Your task to perform on an android device: install app "Flipkart Online Shopping App" Image 0: 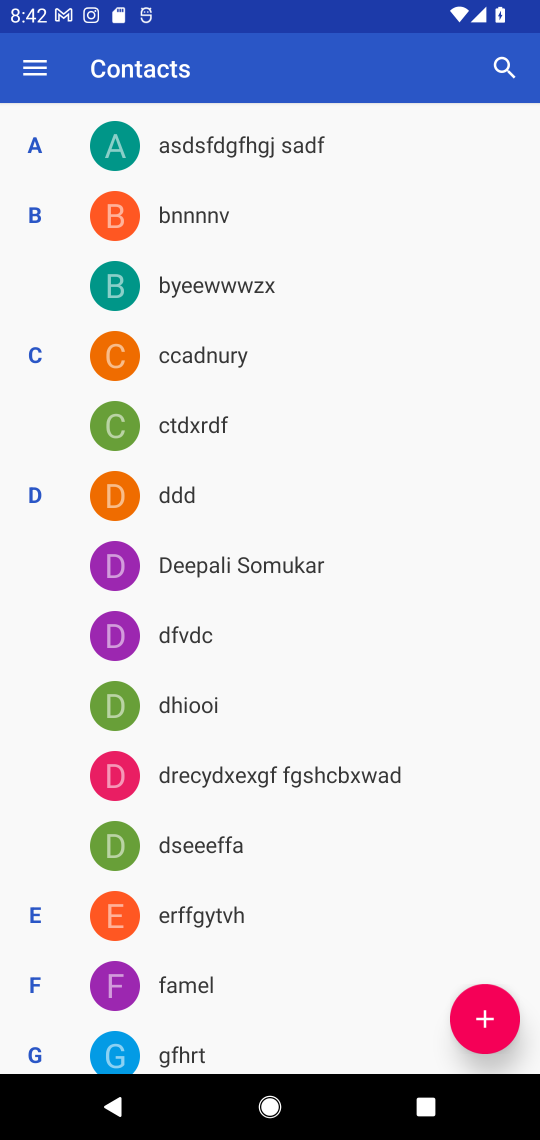
Step 0: press home button
Your task to perform on an android device: install app "Flipkart Online Shopping App" Image 1: 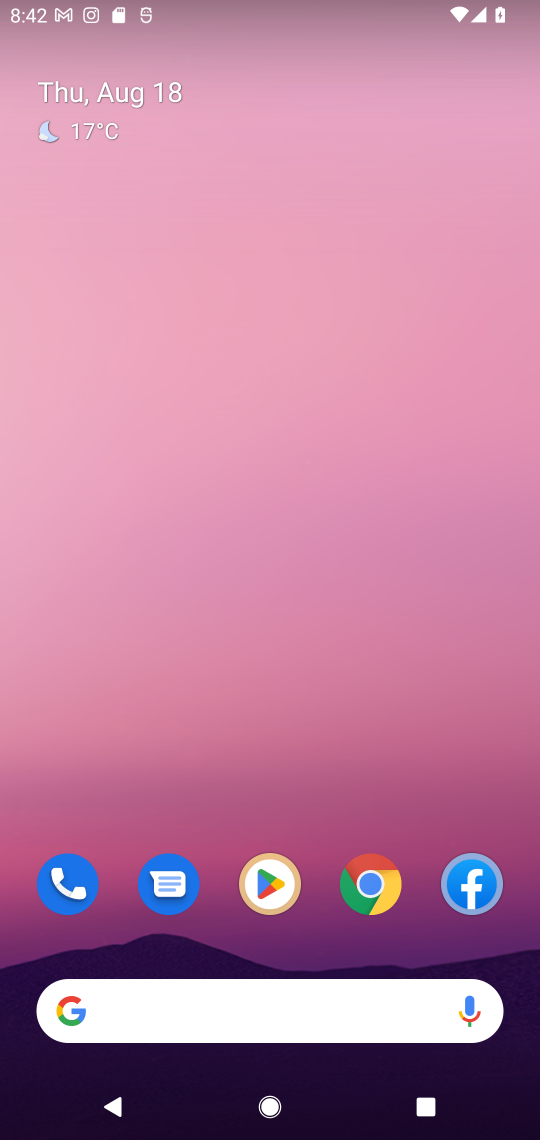
Step 1: drag from (232, 1026) to (423, 87)
Your task to perform on an android device: install app "Flipkart Online Shopping App" Image 2: 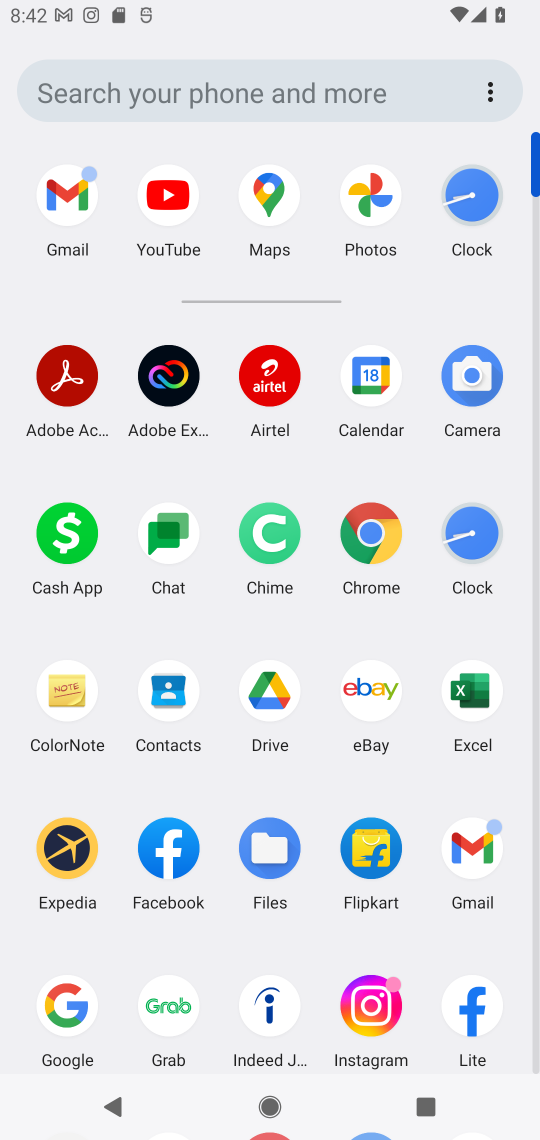
Step 2: drag from (219, 804) to (234, 208)
Your task to perform on an android device: install app "Flipkart Online Shopping App" Image 3: 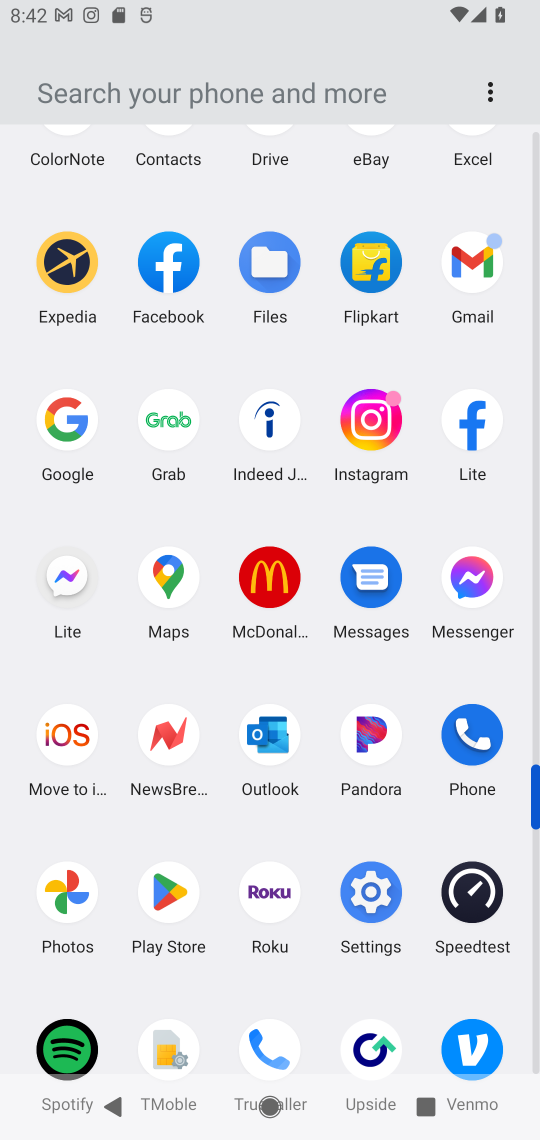
Step 3: click (161, 897)
Your task to perform on an android device: install app "Flipkart Online Shopping App" Image 4: 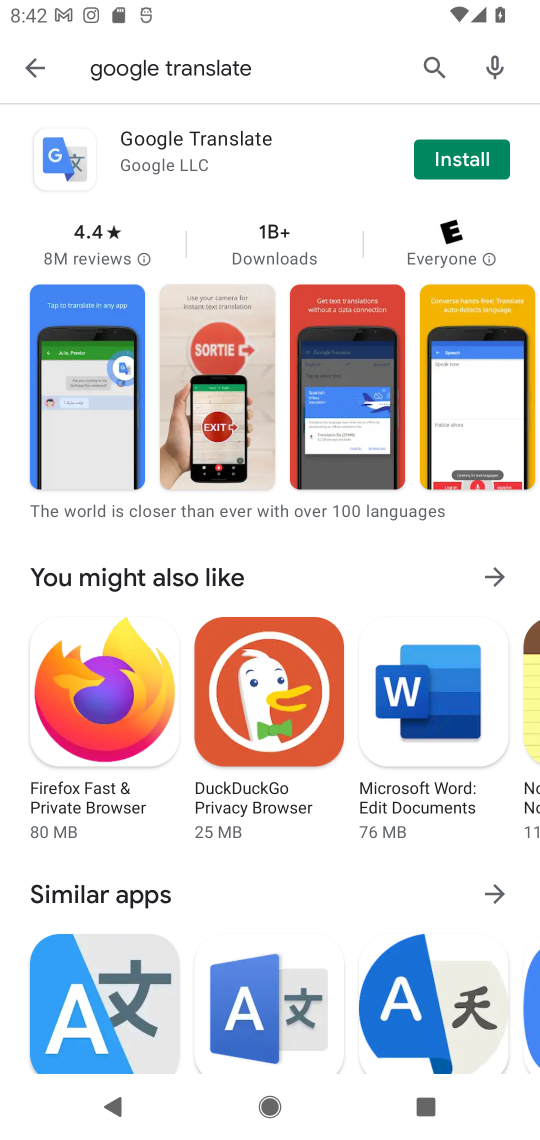
Step 4: press back button
Your task to perform on an android device: install app "Flipkart Online Shopping App" Image 5: 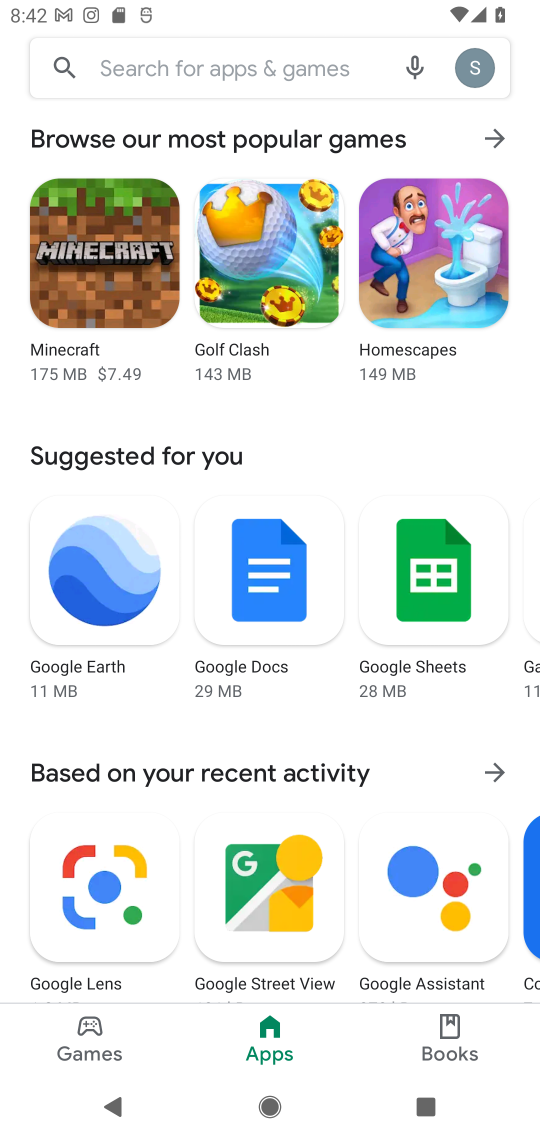
Step 5: click (239, 59)
Your task to perform on an android device: install app "Flipkart Online Shopping App" Image 6: 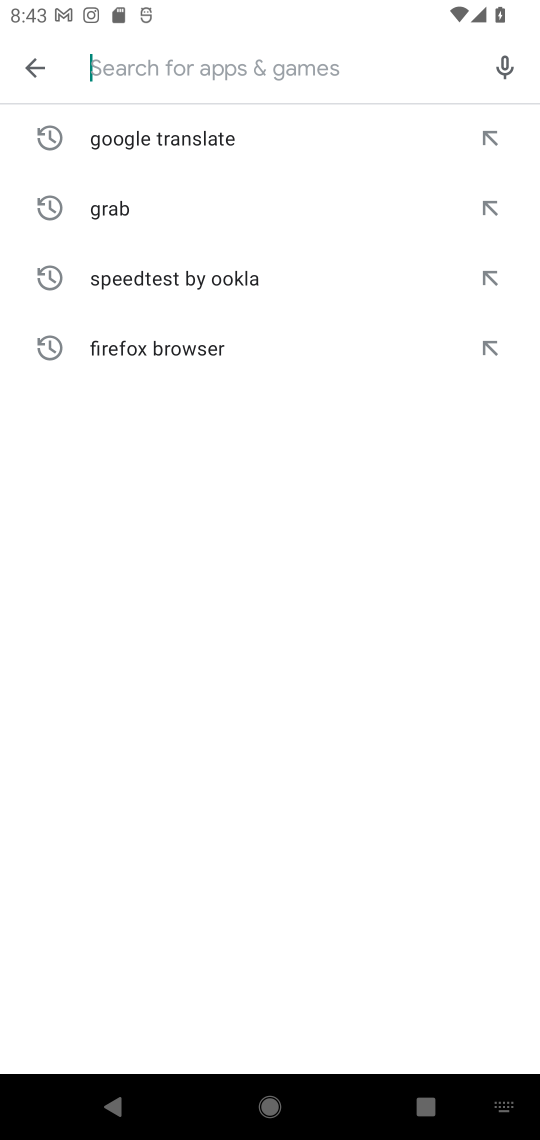
Step 6: type "Flipkart Online Shopping App"
Your task to perform on an android device: install app "Flipkart Online Shopping App" Image 7: 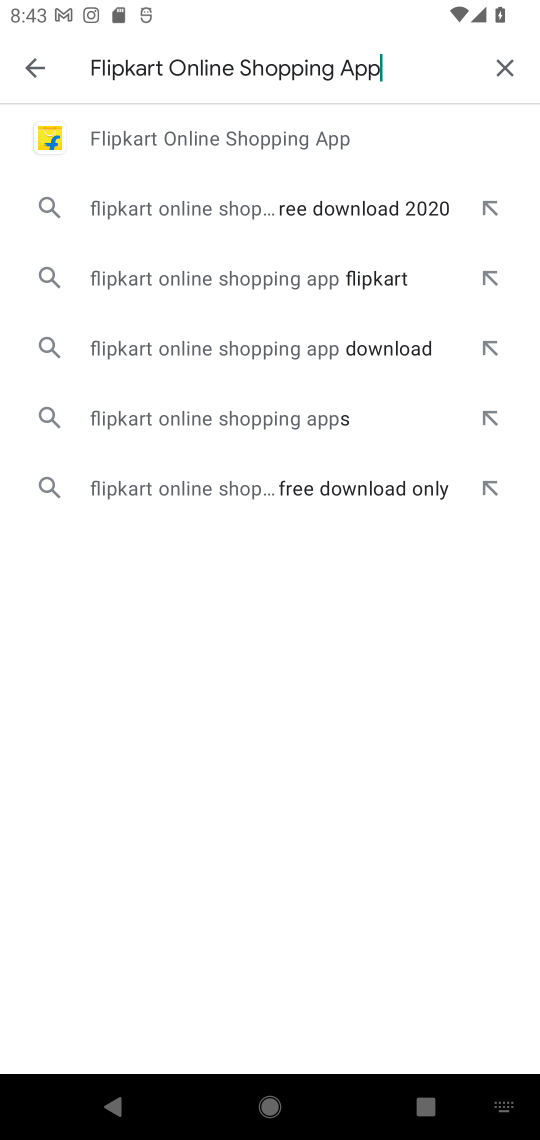
Step 7: click (238, 140)
Your task to perform on an android device: install app "Flipkart Online Shopping App" Image 8: 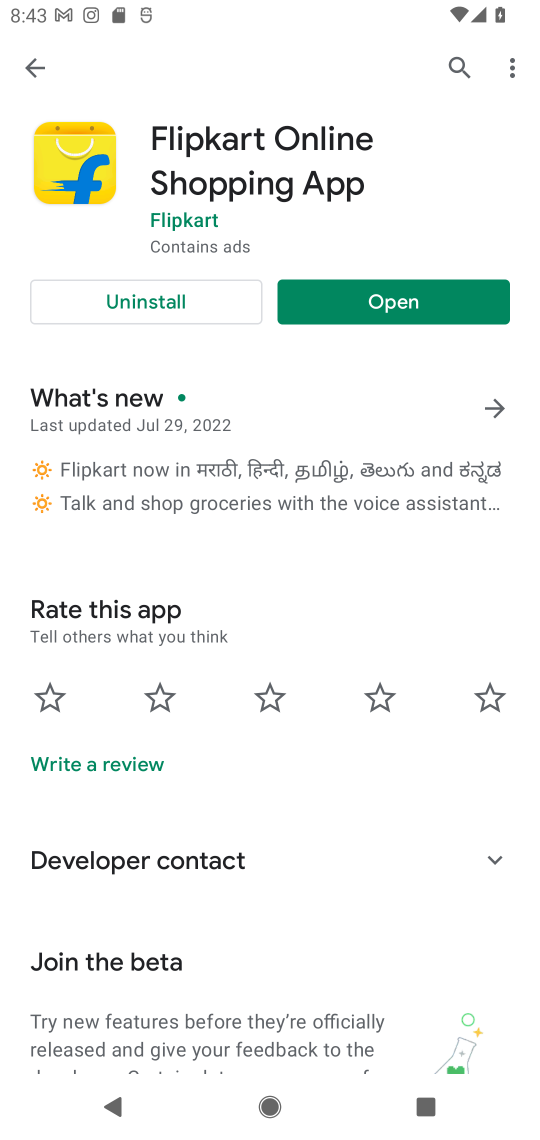
Step 8: task complete